Your task to perform on an android device: find photos in the google photos app Image 0: 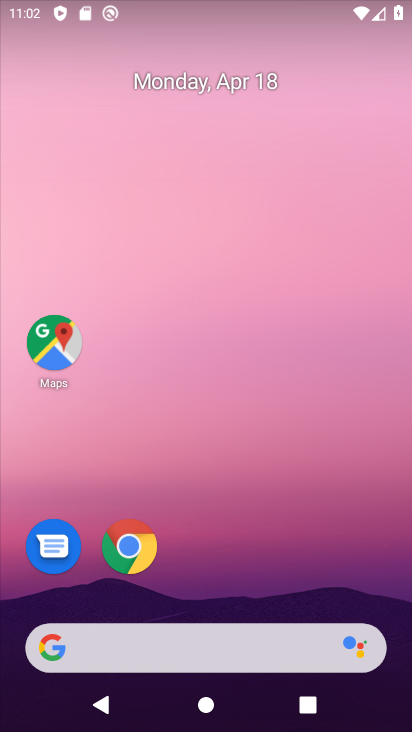
Step 0: drag from (381, 595) to (379, 128)
Your task to perform on an android device: find photos in the google photos app Image 1: 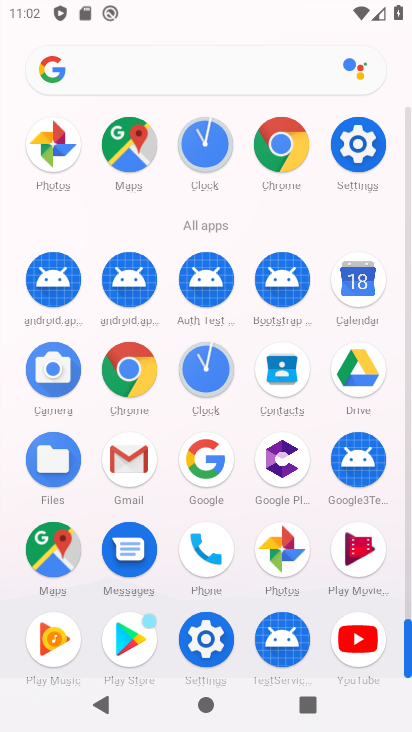
Step 1: click (283, 555)
Your task to perform on an android device: find photos in the google photos app Image 2: 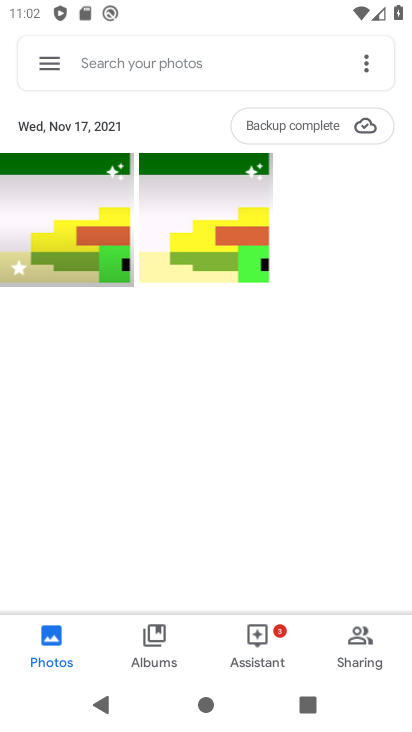
Step 2: click (70, 232)
Your task to perform on an android device: find photos in the google photos app Image 3: 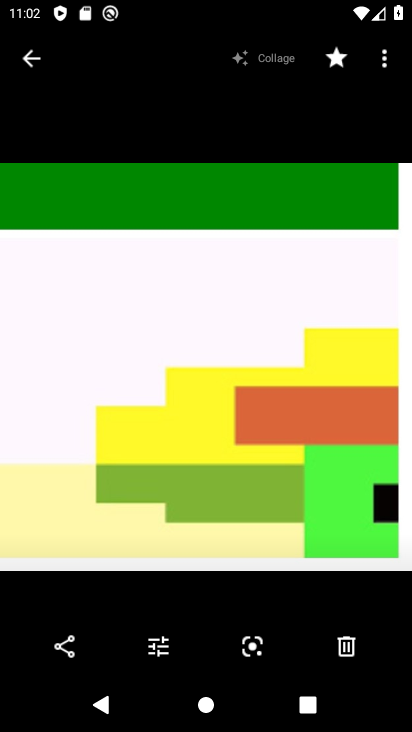
Step 3: task complete